Your task to perform on an android device: see tabs open on other devices in the chrome app Image 0: 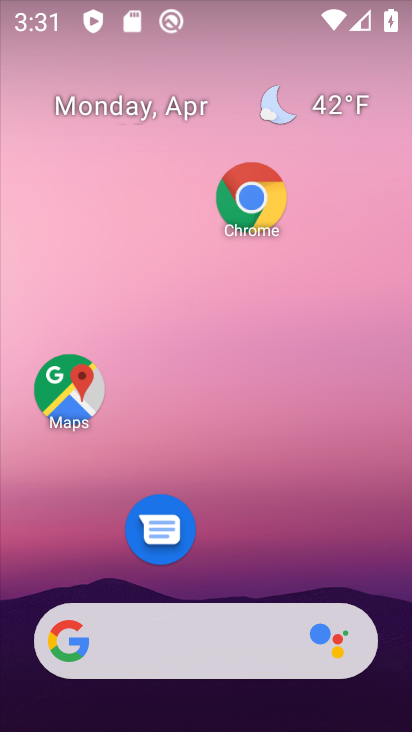
Step 0: click (240, 220)
Your task to perform on an android device: see tabs open on other devices in the chrome app Image 1: 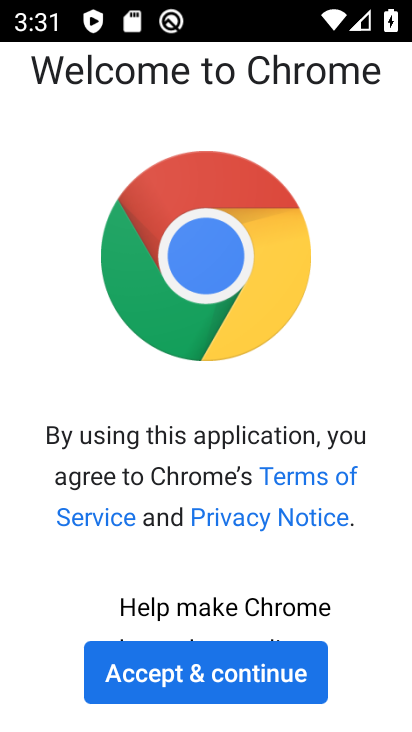
Step 1: click (288, 652)
Your task to perform on an android device: see tabs open on other devices in the chrome app Image 2: 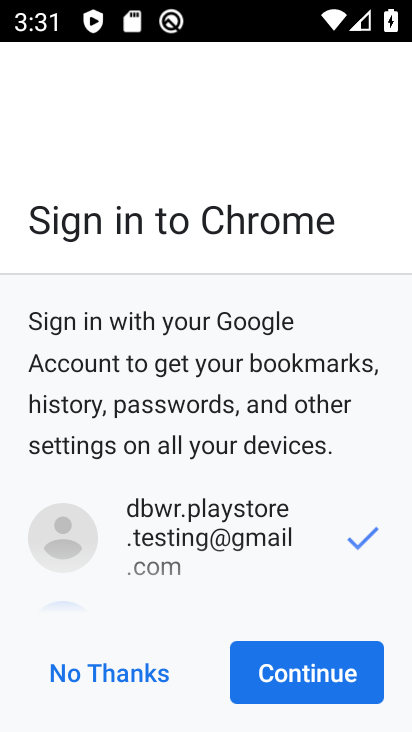
Step 2: click (299, 660)
Your task to perform on an android device: see tabs open on other devices in the chrome app Image 3: 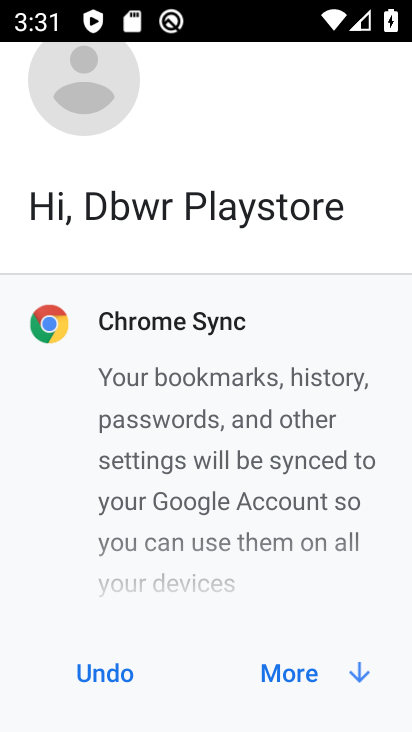
Step 3: click (290, 655)
Your task to perform on an android device: see tabs open on other devices in the chrome app Image 4: 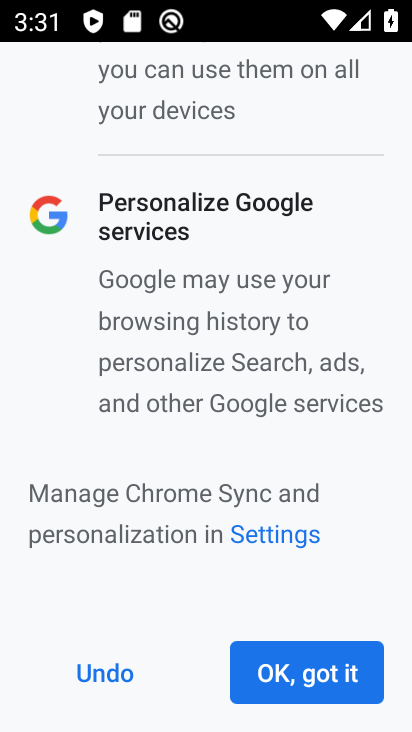
Step 4: click (290, 655)
Your task to perform on an android device: see tabs open on other devices in the chrome app Image 5: 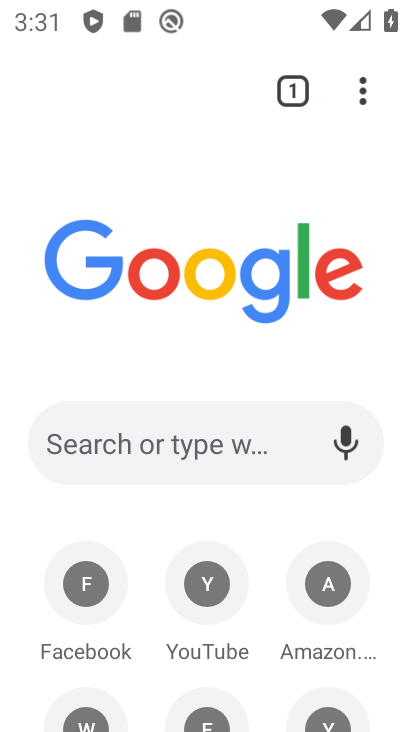
Step 5: click (355, 101)
Your task to perform on an android device: see tabs open on other devices in the chrome app Image 6: 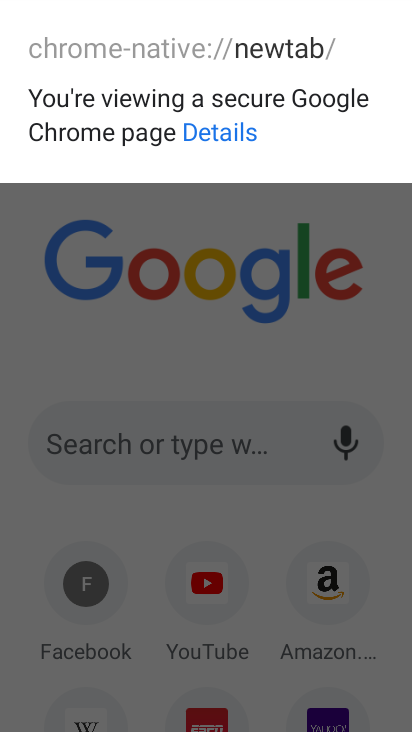
Step 6: click (358, 244)
Your task to perform on an android device: see tabs open on other devices in the chrome app Image 7: 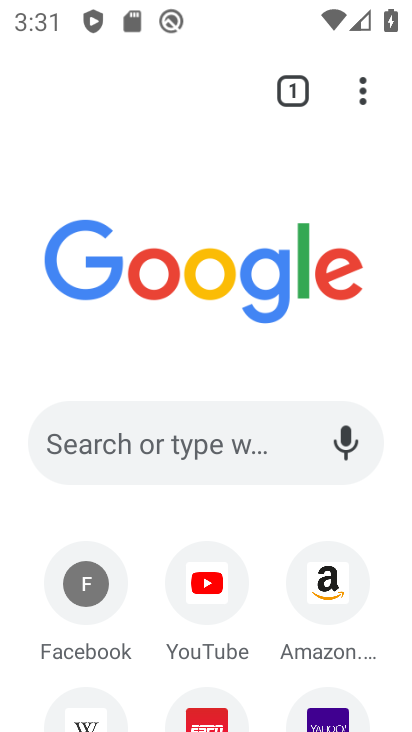
Step 7: click (349, 104)
Your task to perform on an android device: see tabs open on other devices in the chrome app Image 8: 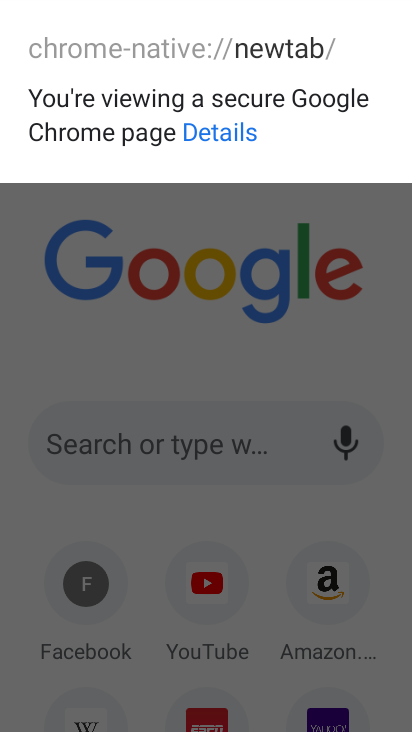
Step 8: click (349, 282)
Your task to perform on an android device: see tabs open on other devices in the chrome app Image 9: 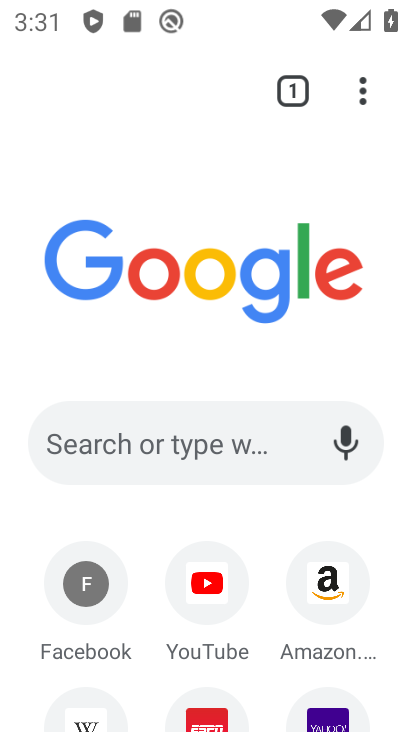
Step 9: click (367, 89)
Your task to perform on an android device: see tabs open on other devices in the chrome app Image 10: 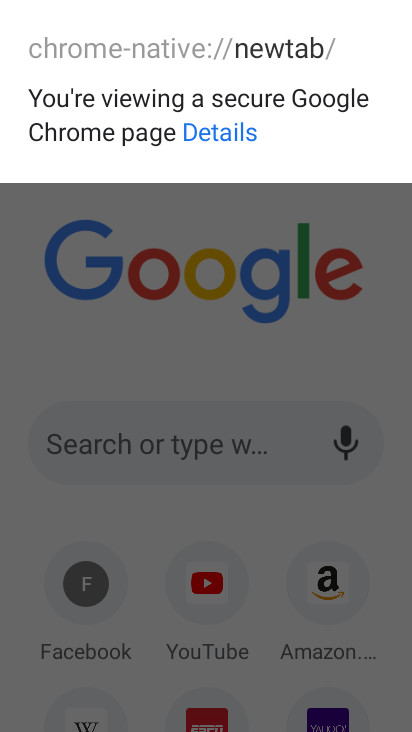
Step 10: click (373, 341)
Your task to perform on an android device: see tabs open on other devices in the chrome app Image 11: 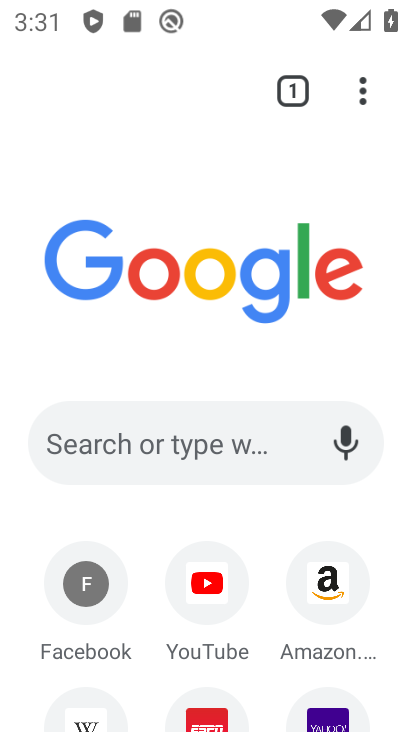
Step 11: click (366, 99)
Your task to perform on an android device: see tabs open on other devices in the chrome app Image 12: 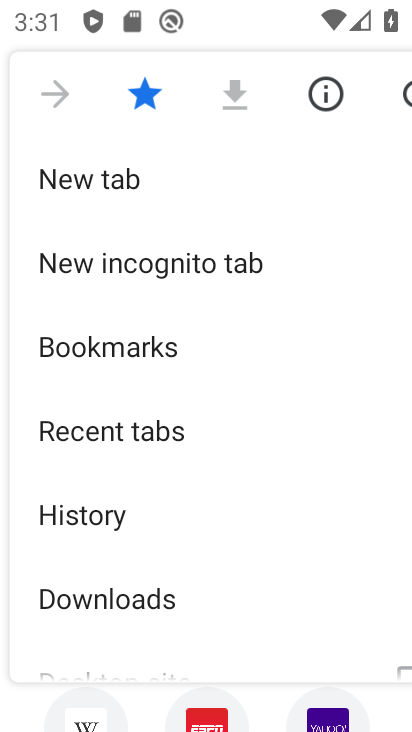
Step 12: click (156, 419)
Your task to perform on an android device: see tabs open on other devices in the chrome app Image 13: 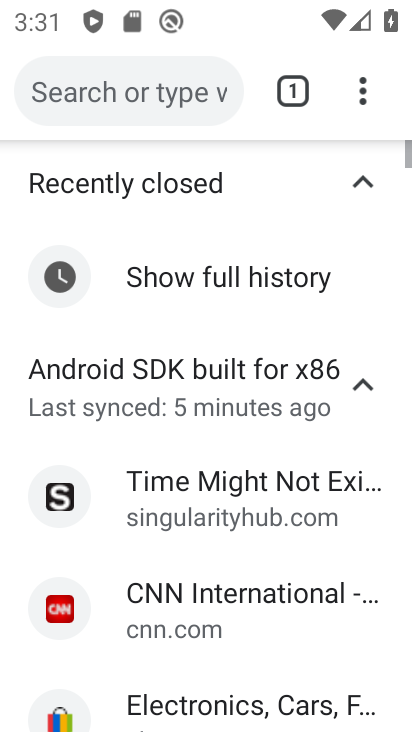
Step 13: task complete